Your task to perform on an android device: Open Android settings Image 0: 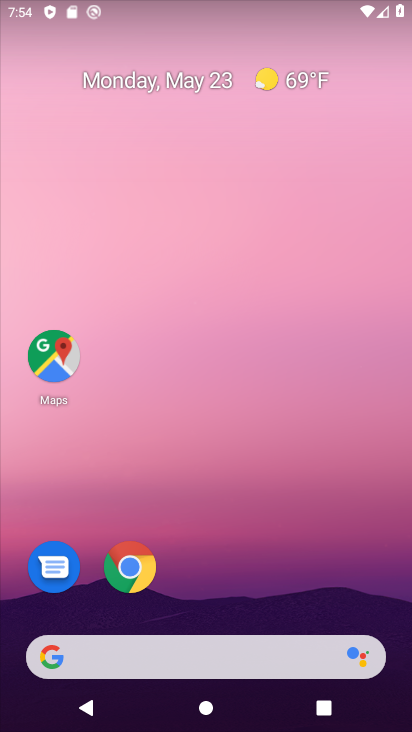
Step 0: drag from (218, 575) to (307, 56)
Your task to perform on an android device: Open Android settings Image 1: 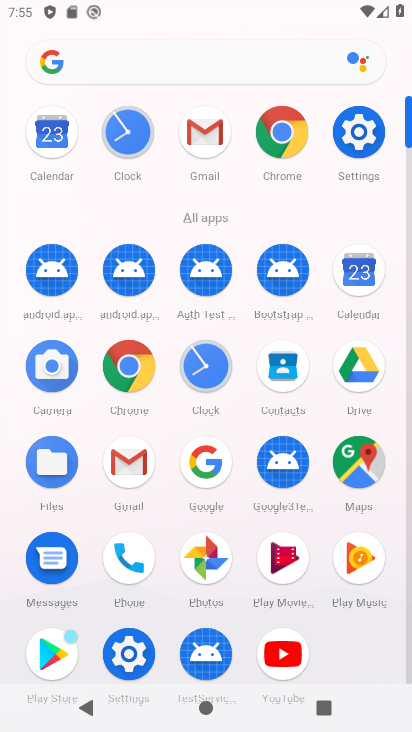
Step 1: click (369, 148)
Your task to perform on an android device: Open Android settings Image 2: 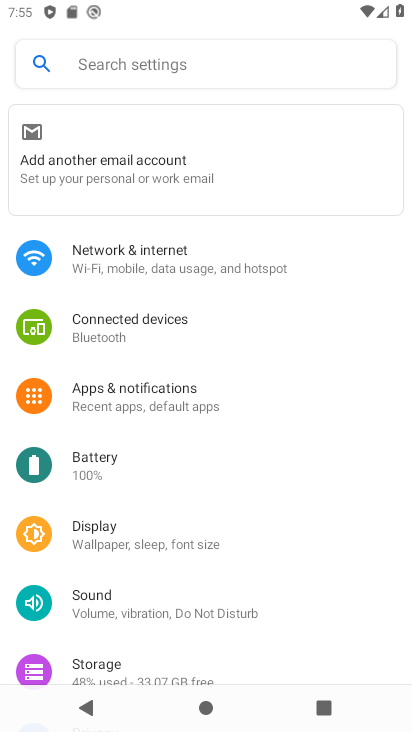
Step 2: drag from (153, 581) to (200, 234)
Your task to perform on an android device: Open Android settings Image 3: 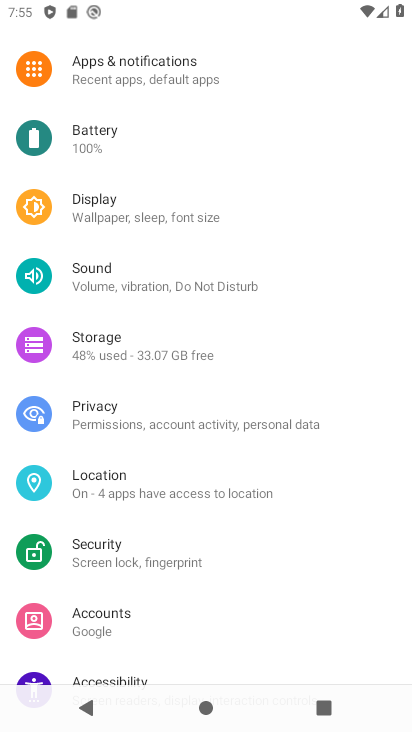
Step 3: drag from (155, 616) to (193, 267)
Your task to perform on an android device: Open Android settings Image 4: 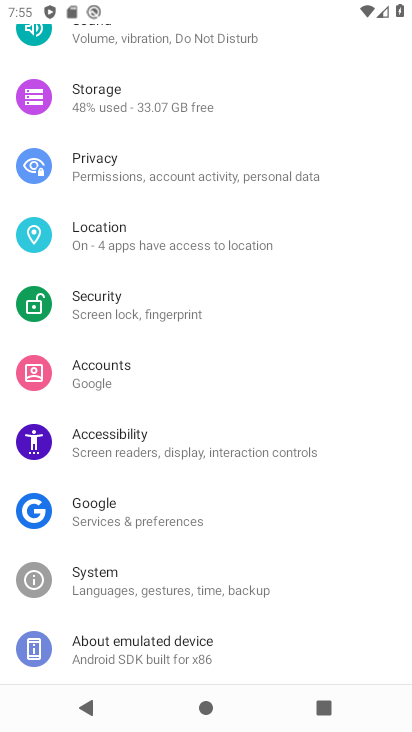
Step 4: drag from (185, 628) to (185, 484)
Your task to perform on an android device: Open Android settings Image 5: 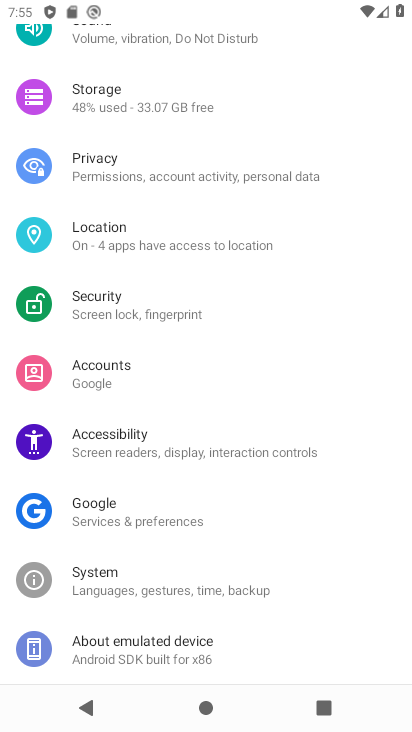
Step 5: click (155, 649)
Your task to perform on an android device: Open Android settings Image 6: 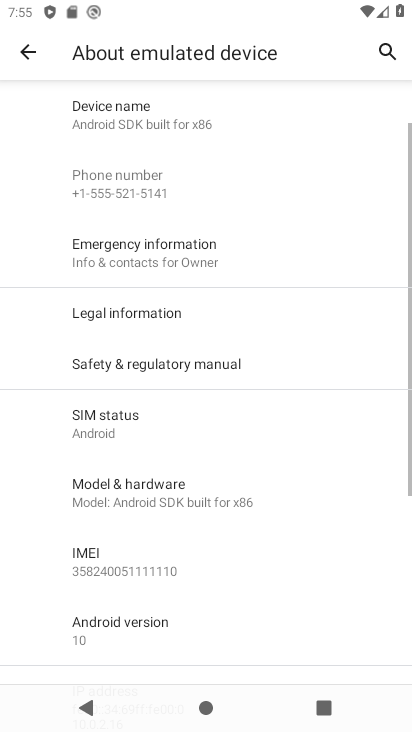
Step 6: drag from (174, 483) to (191, 222)
Your task to perform on an android device: Open Android settings Image 7: 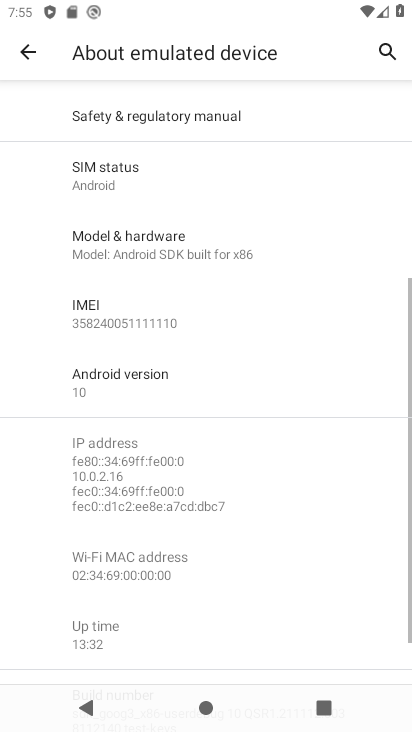
Step 7: click (145, 393)
Your task to perform on an android device: Open Android settings Image 8: 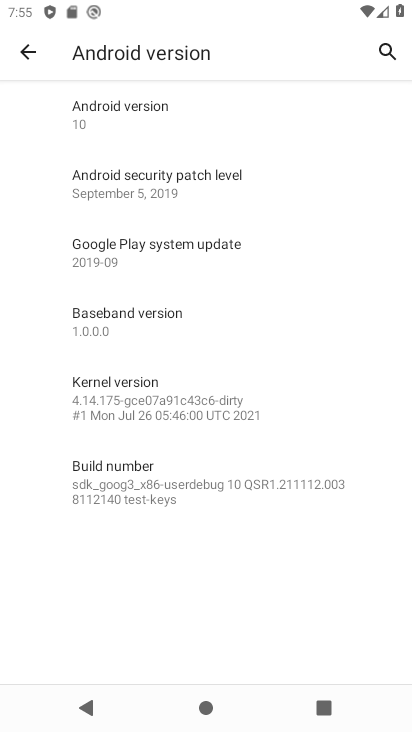
Step 8: task complete